Your task to perform on an android device: delete browsing data in the chrome app Image 0: 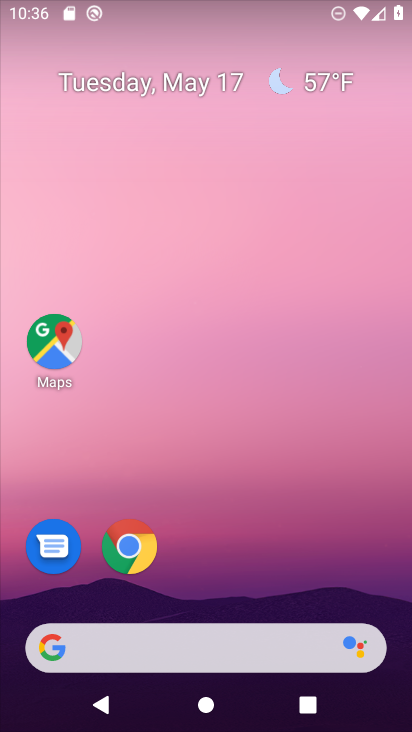
Step 0: click (140, 550)
Your task to perform on an android device: delete browsing data in the chrome app Image 1: 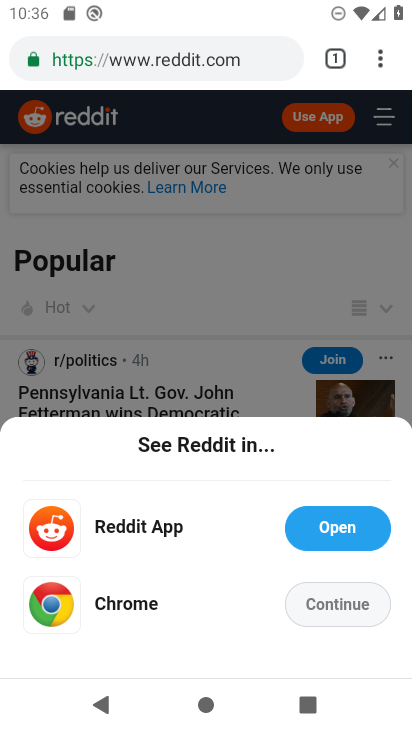
Step 1: click (379, 65)
Your task to perform on an android device: delete browsing data in the chrome app Image 2: 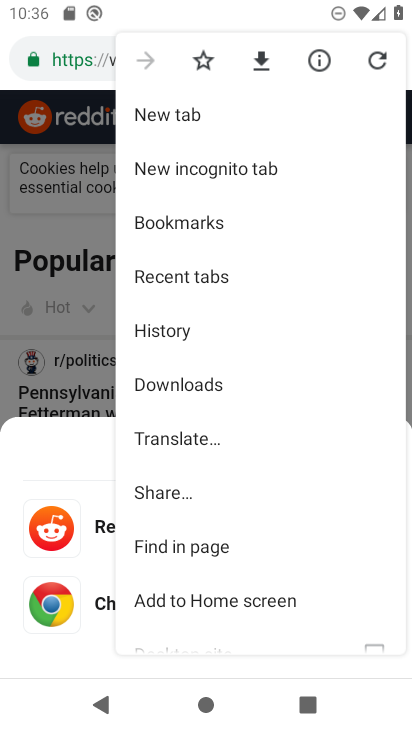
Step 2: click (161, 331)
Your task to perform on an android device: delete browsing data in the chrome app Image 3: 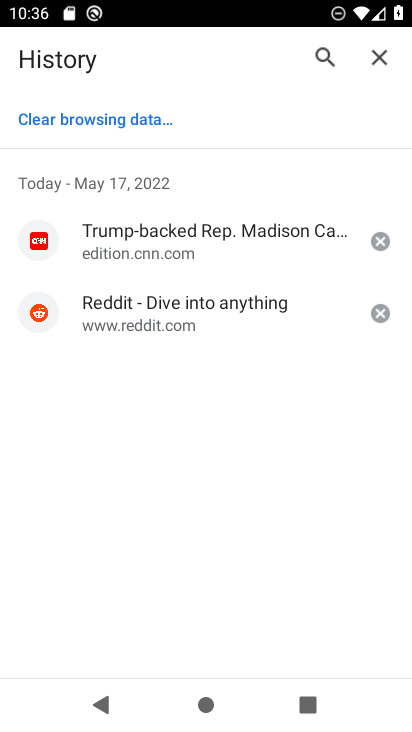
Step 3: click (80, 120)
Your task to perform on an android device: delete browsing data in the chrome app Image 4: 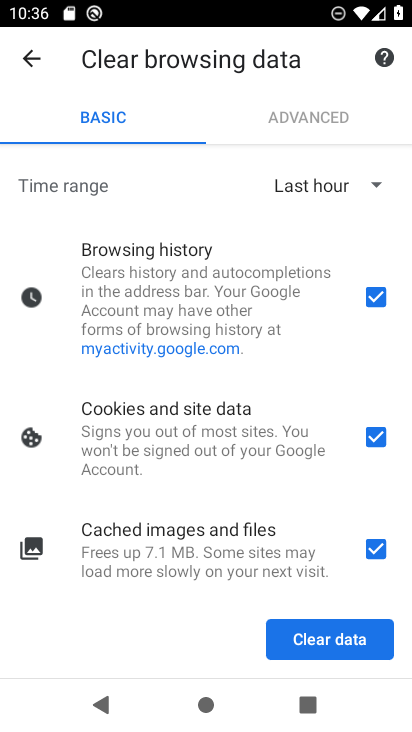
Step 4: click (366, 431)
Your task to perform on an android device: delete browsing data in the chrome app Image 5: 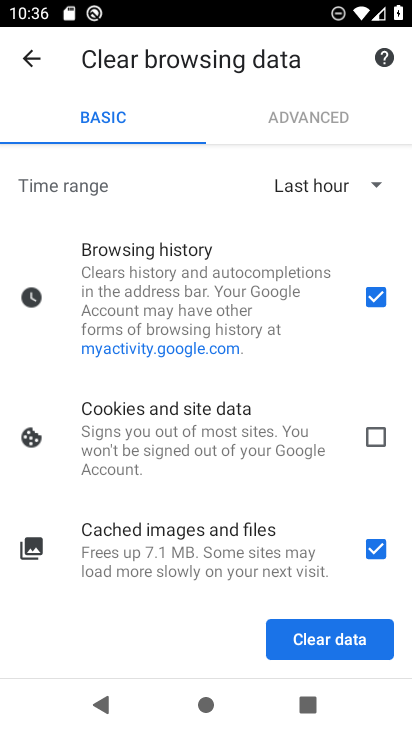
Step 5: click (383, 546)
Your task to perform on an android device: delete browsing data in the chrome app Image 6: 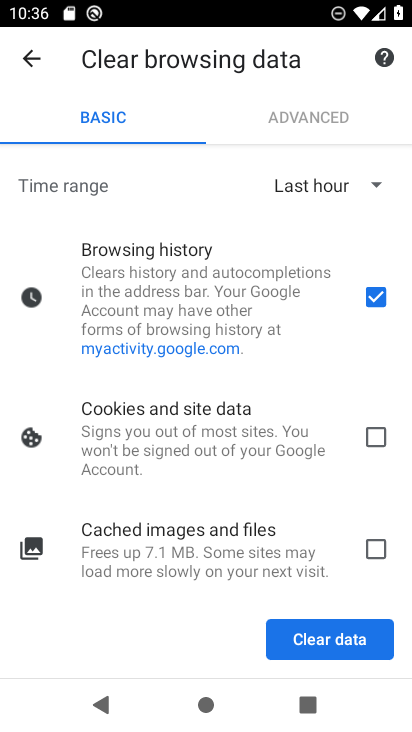
Step 6: drag from (216, 551) to (172, 276)
Your task to perform on an android device: delete browsing data in the chrome app Image 7: 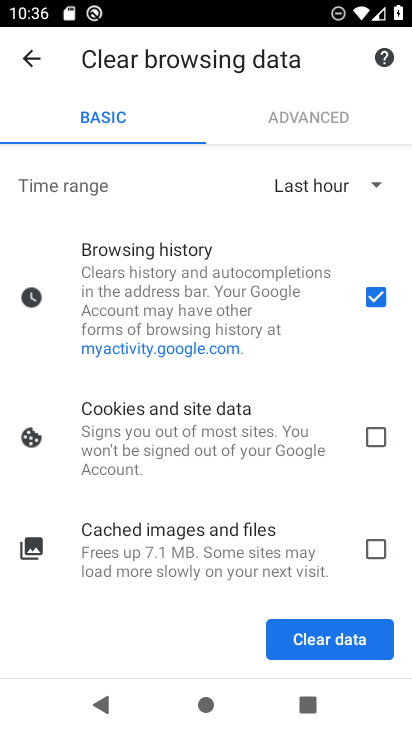
Step 7: click (294, 637)
Your task to perform on an android device: delete browsing data in the chrome app Image 8: 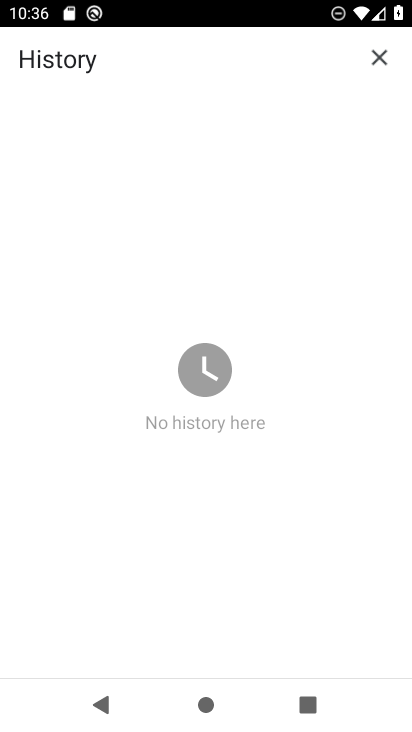
Step 8: task complete